Your task to perform on an android device: When is my next meeting? Image 0: 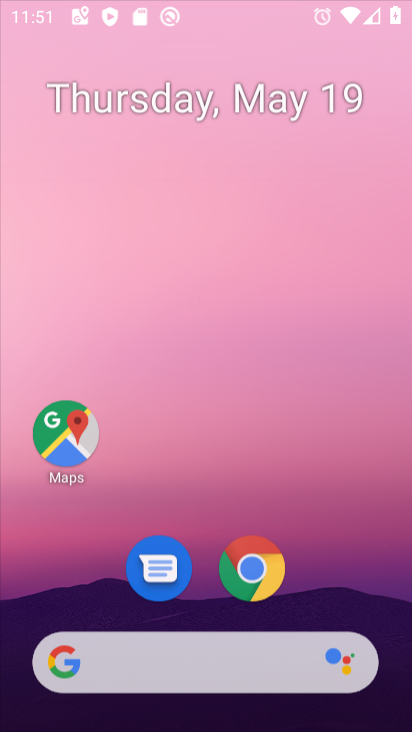
Step 0: click (261, 117)
Your task to perform on an android device: When is my next meeting? Image 1: 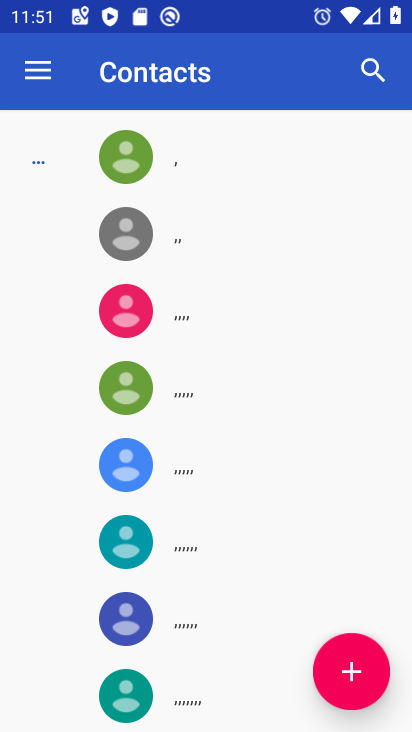
Step 1: press home button
Your task to perform on an android device: When is my next meeting? Image 2: 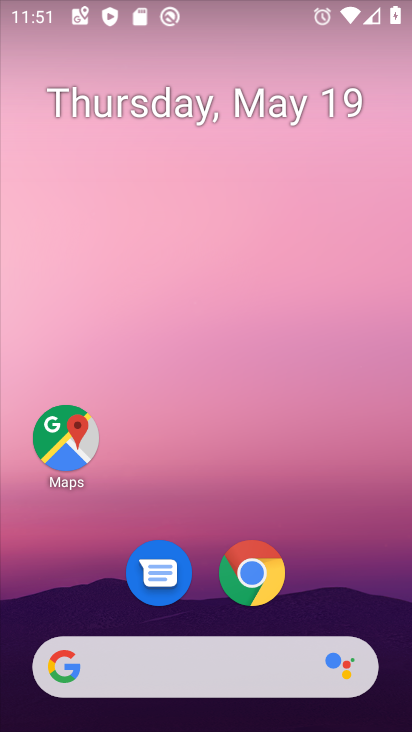
Step 2: drag from (200, 600) to (221, 5)
Your task to perform on an android device: When is my next meeting? Image 3: 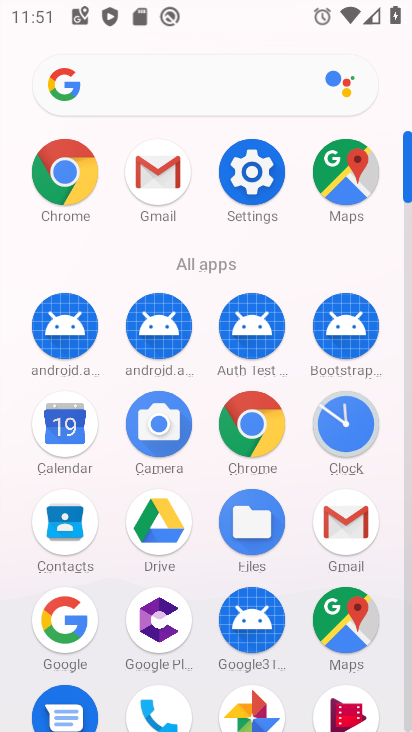
Step 3: click (48, 454)
Your task to perform on an android device: When is my next meeting? Image 4: 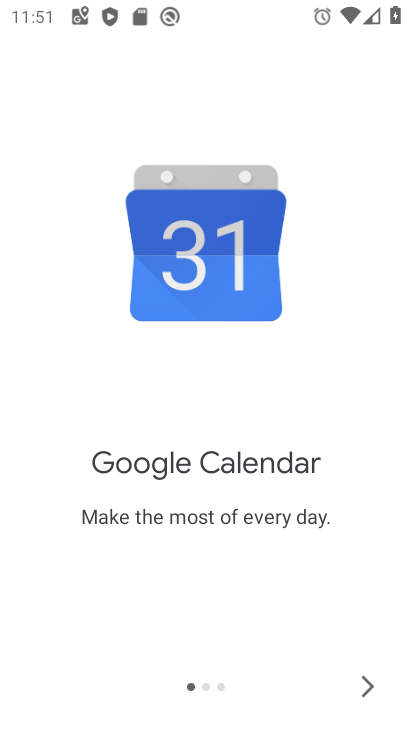
Step 4: click (369, 691)
Your task to perform on an android device: When is my next meeting? Image 5: 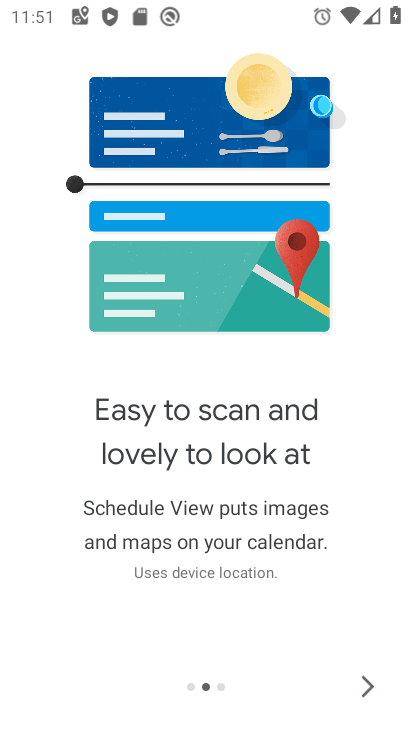
Step 5: click (365, 690)
Your task to perform on an android device: When is my next meeting? Image 6: 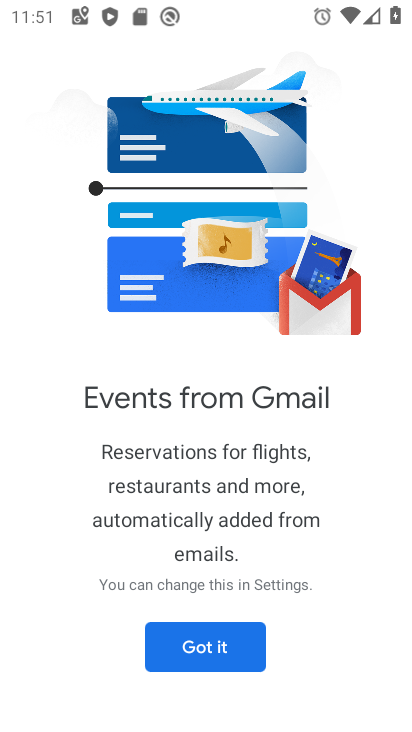
Step 6: click (231, 658)
Your task to perform on an android device: When is my next meeting? Image 7: 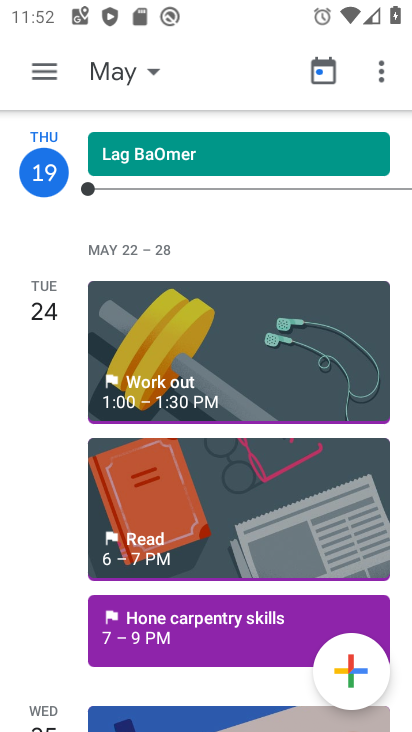
Step 7: task complete